Your task to perform on an android device: Open Android settings Image 0: 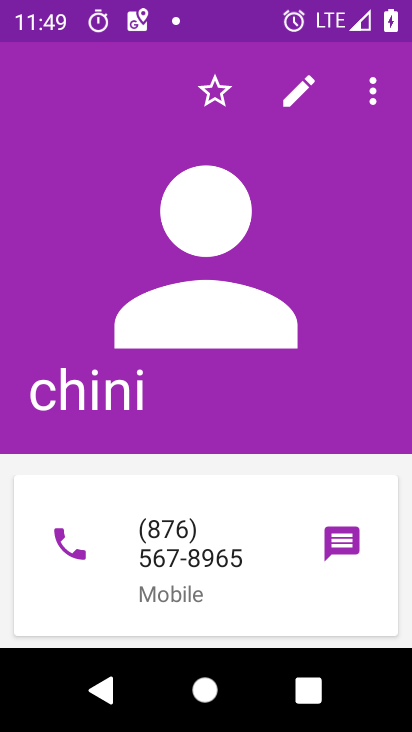
Step 0: press home button
Your task to perform on an android device: Open Android settings Image 1: 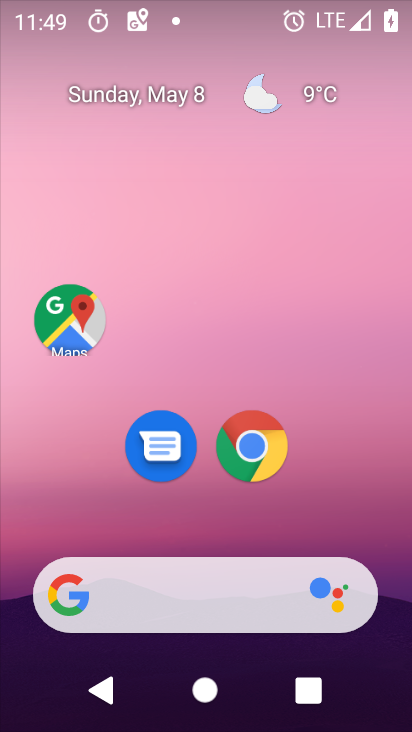
Step 1: drag from (349, 561) to (358, 13)
Your task to perform on an android device: Open Android settings Image 2: 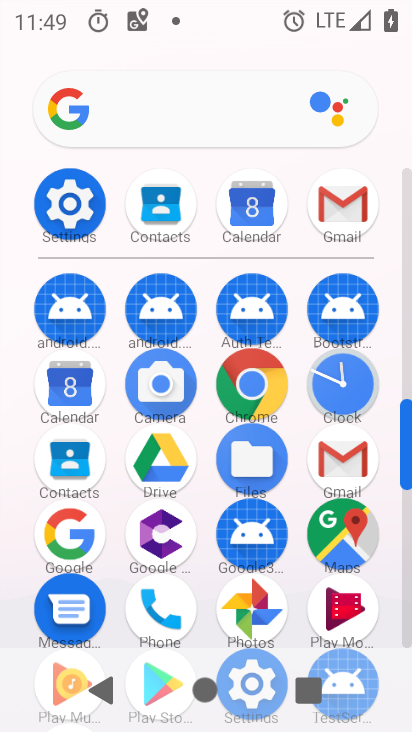
Step 2: click (69, 204)
Your task to perform on an android device: Open Android settings Image 3: 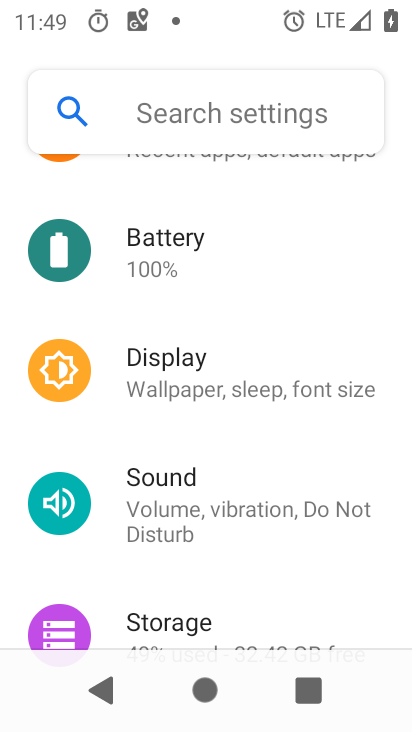
Step 3: task complete